Your task to perform on an android device: Open sound settings Image 0: 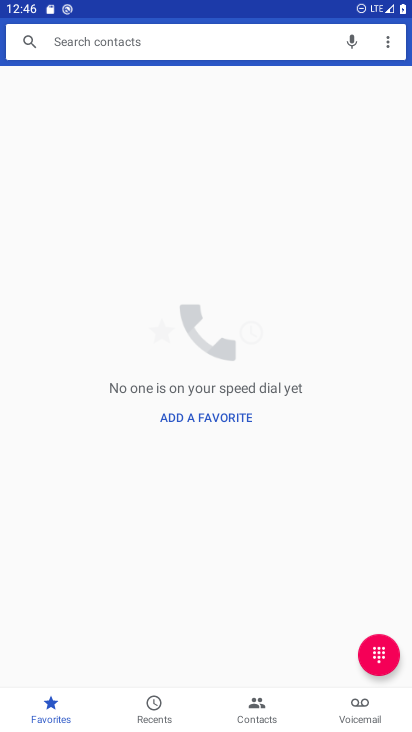
Step 0: click (78, 497)
Your task to perform on an android device: Open sound settings Image 1: 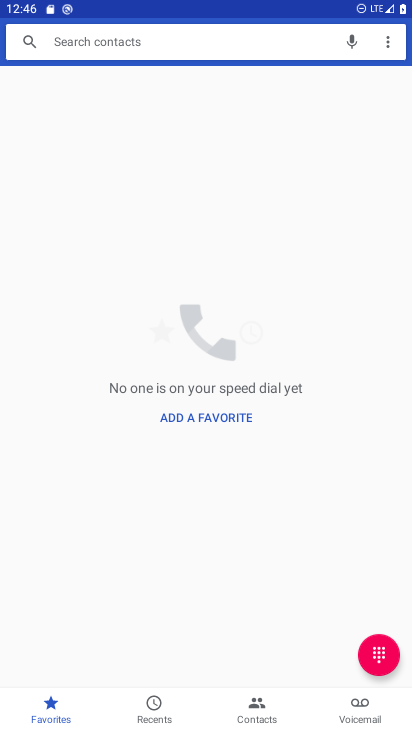
Step 1: press home button
Your task to perform on an android device: Open sound settings Image 2: 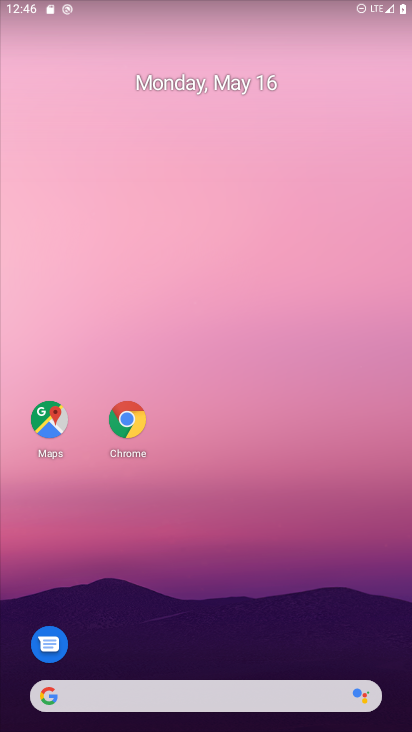
Step 2: drag from (227, 667) to (307, 149)
Your task to perform on an android device: Open sound settings Image 3: 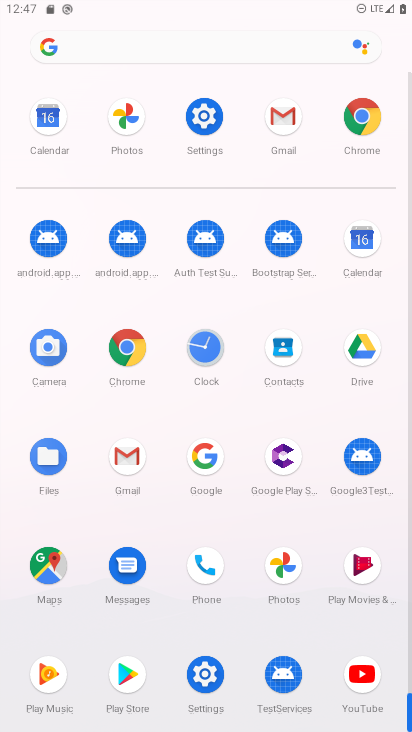
Step 3: click (206, 117)
Your task to perform on an android device: Open sound settings Image 4: 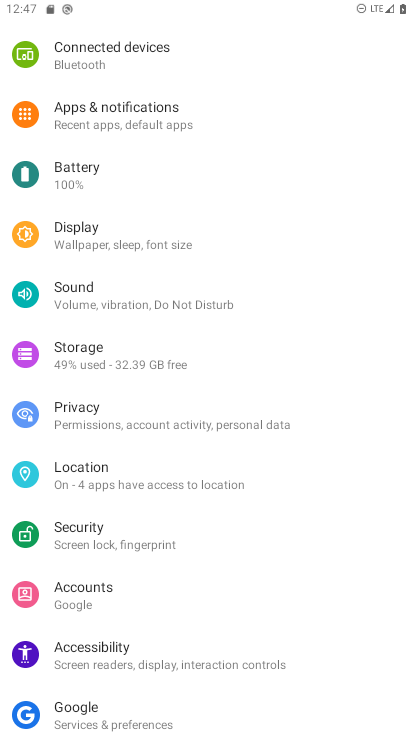
Step 4: click (123, 296)
Your task to perform on an android device: Open sound settings Image 5: 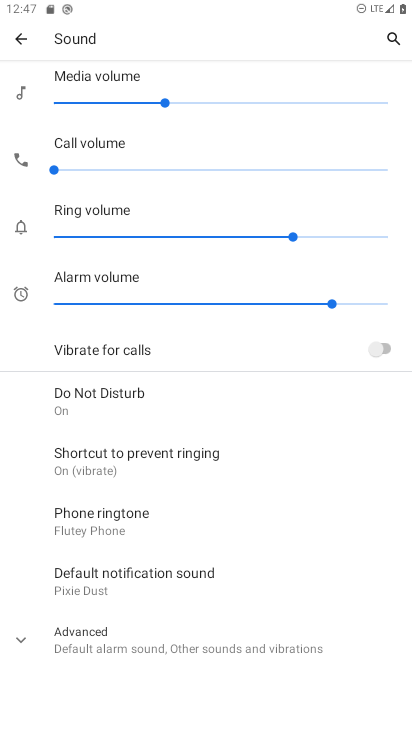
Step 5: task complete